Your task to perform on an android device: Open the Play Movies app and select the watchlist tab. Image 0: 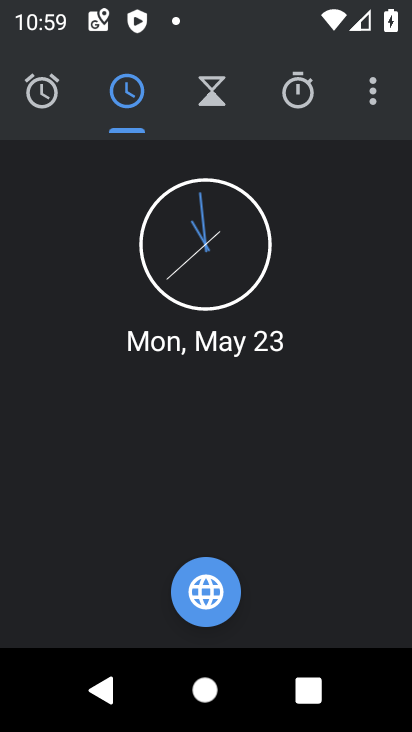
Step 0: press home button
Your task to perform on an android device: Open the Play Movies app and select the watchlist tab. Image 1: 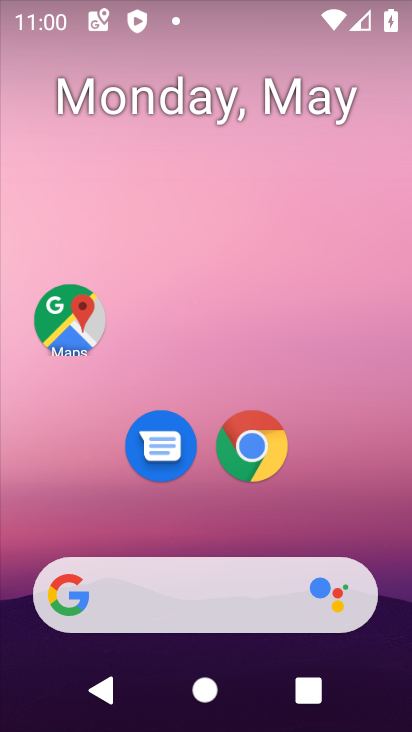
Step 1: drag from (229, 616) to (206, 233)
Your task to perform on an android device: Open the Play Movies app and select the watchlist tab. Image 2: 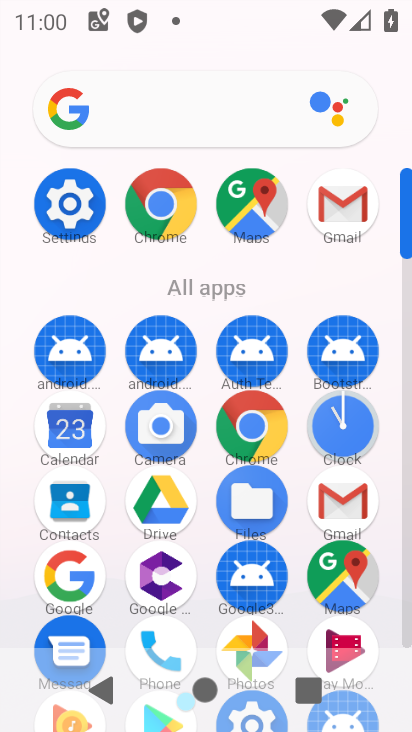
Step 2: click (331, 642)
Your task to perform on an android device: Open the Play Movies app and select the watchlist tab. Image 3: 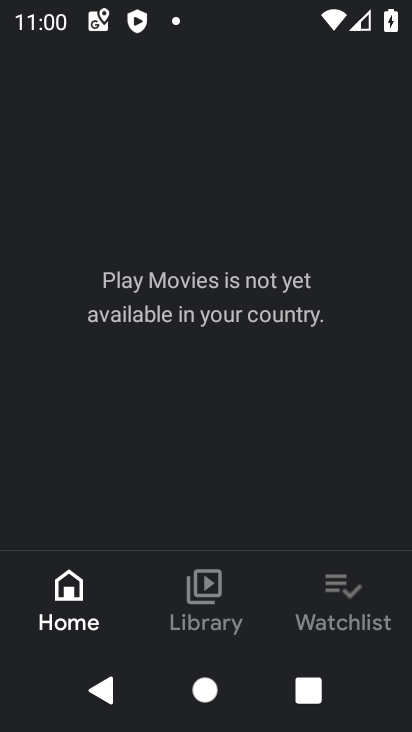
Step 3: click (313, 619)
Your task to perform on an android device: Open the Play Movies app and select the watchlist tab. Image 4: 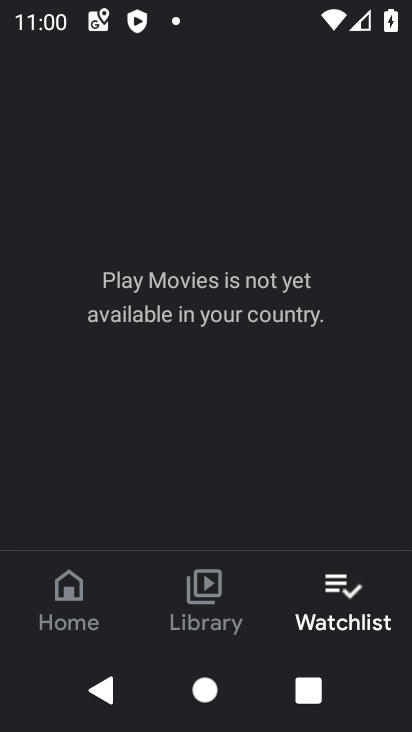
Step 4: task complete